Your task to perform on an android device: turn on priority inbox in the gmail app Image 0: 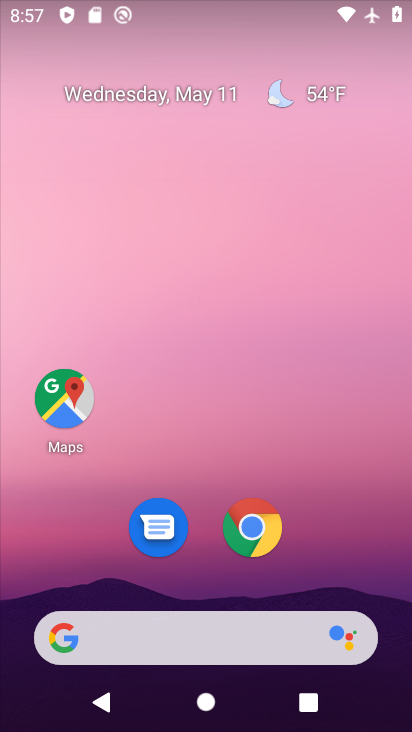
Step 0: drag from (317, 507) to (324, 241)
Your task to perform on an android device: turn on priority inbox in the gmail app Image 1: 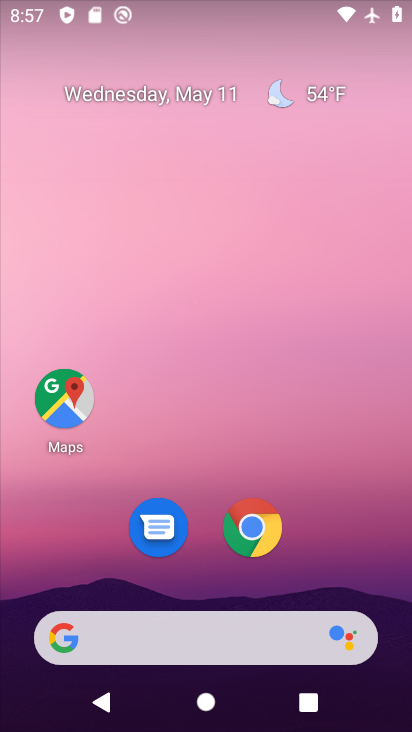
Step 1: drag from (336, 545) to (334, 156)
Your task to perform on an android device: turn on priority inbox in the gmail app Image 2: 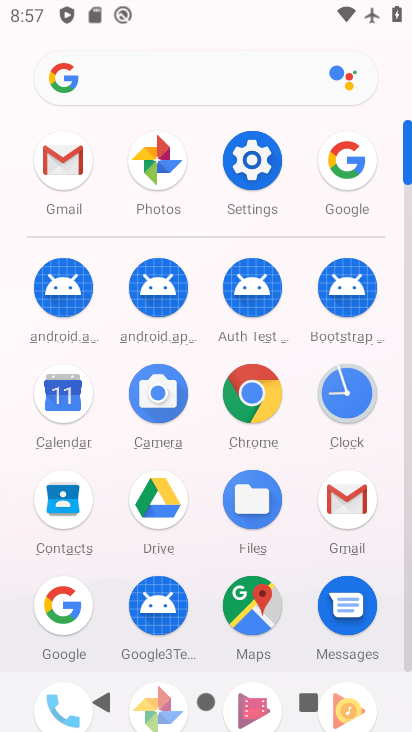
Step 2: click (47, 165)
Your task to perform on an android device: turn on priority inbox in the gmail app Image 3: 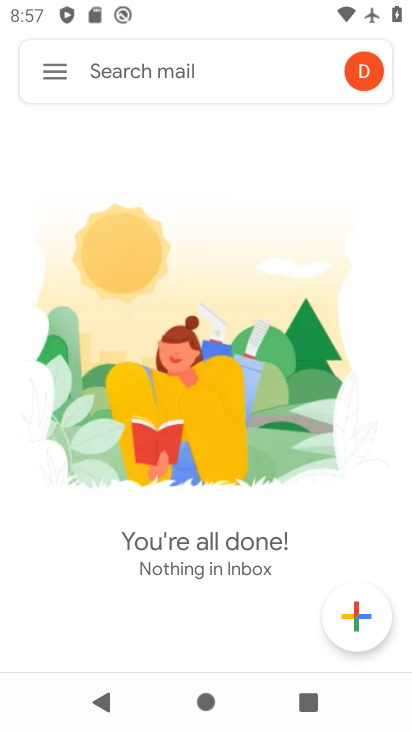
Step 3: click (51, 77)
Your task to perform on an android device: turn on priority inbox in the gmail app Image 4: 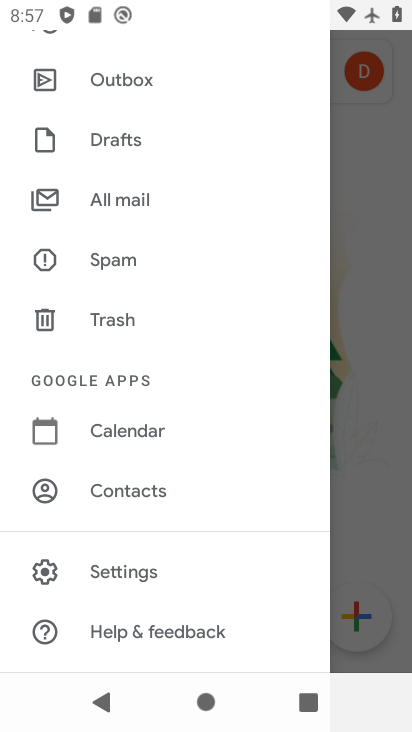
Step 4: click (138, 573)
Your task to perform on an android device: turn on priority inbox in the gmail app Image 5: 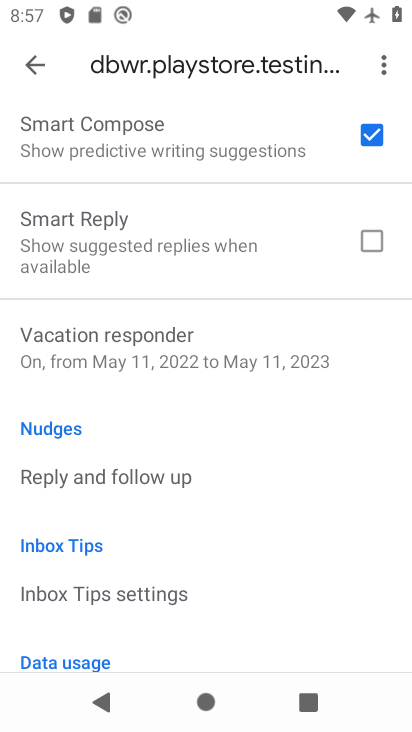
Step 5: drag from (139, 553) to (121, 624)
Your task to perform on an android device: turn on priority inbox in the gmail app Image 6: 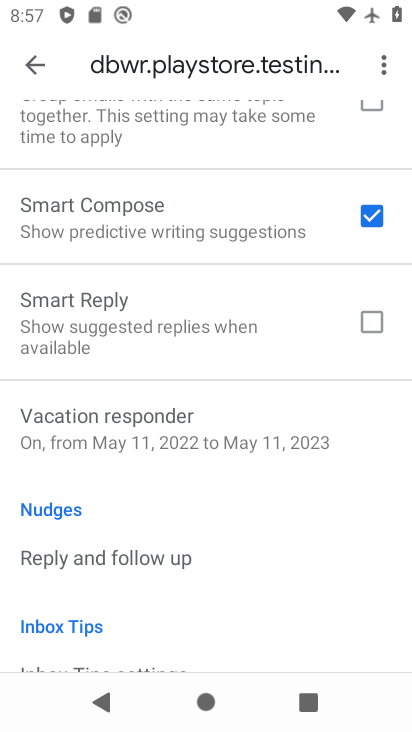
Step 6: drag from (176, 216) to (171, 612)
Your task to perform on an android device: turn on priority inbox in the gmail app Image 7: 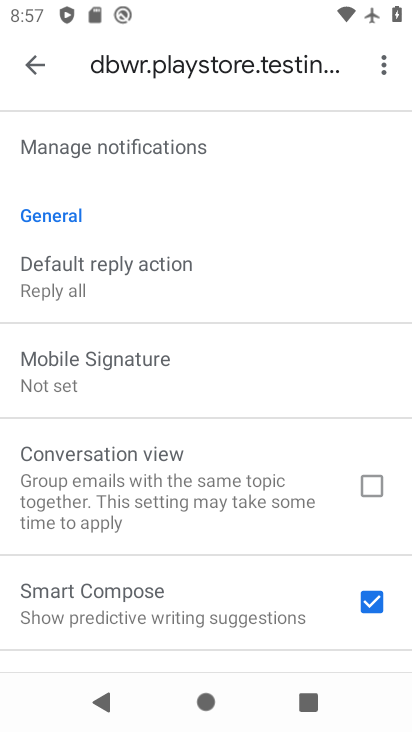
Step 7: drag from (259, 229) to (271, 625)
Your task to perform on an android device: turn on priority inbox in the gmail app Image 8: 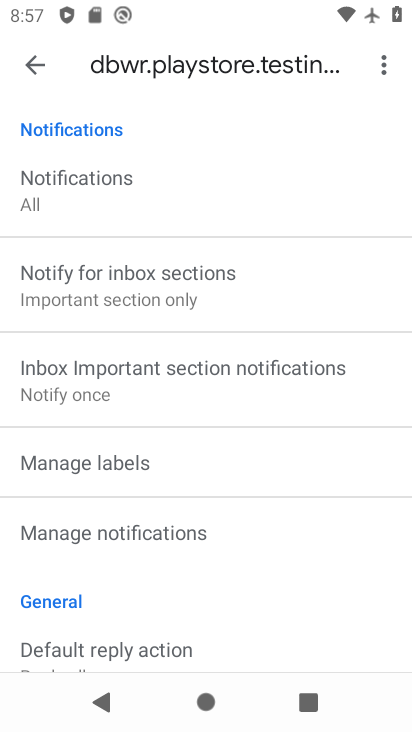
Step 8: drag from (241, 252) to (242, 562)
Your task to perform on an android device: turn on priority inbox in the gmail app Image 9: 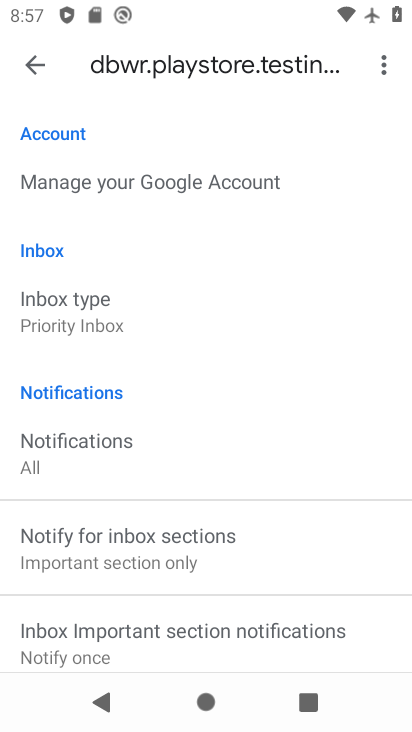
Step 9: click (109, 324)
Your task to perform on an android device: turn on priority inbox in the gmail app Image 10: 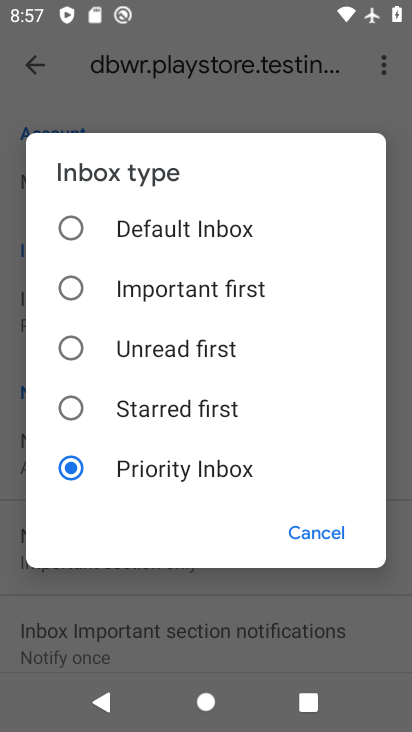
Step 10: task complete